Your task to perform on an android device: turn on data saver in the chrome app Image 0: 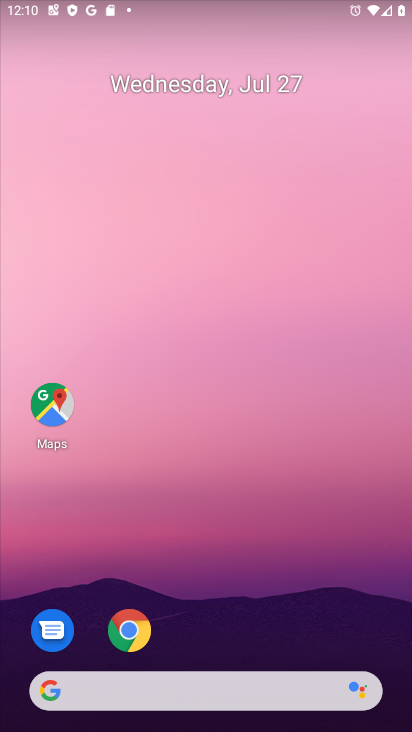
Step 0: click (139, 635)
Your task to perform on an android device: turn on data saver in the chrome app Image 1: 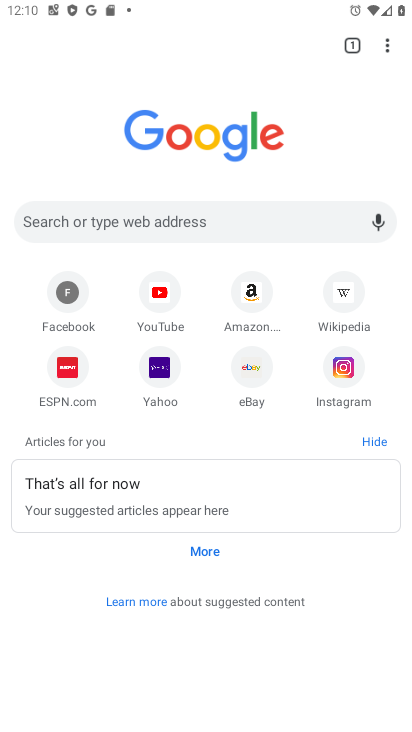
Step 1: click (395, 46)
Your task to perform on an android device: turn on data saver in the chrome app Image 2: 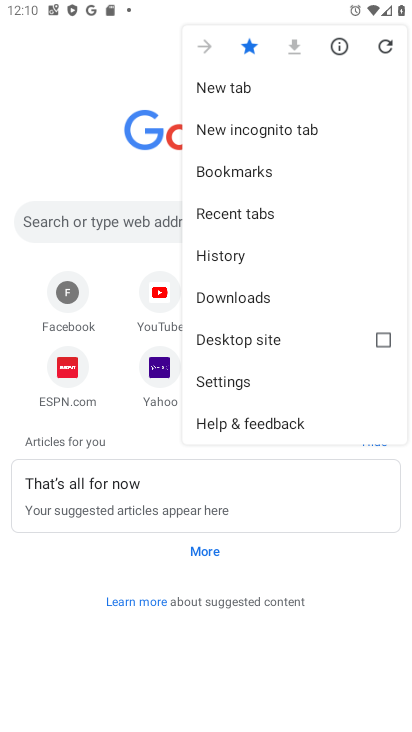
Step 2: click (288, 386)
Your task to perform on an android device: turn on data saver in the chrome app Image 3: 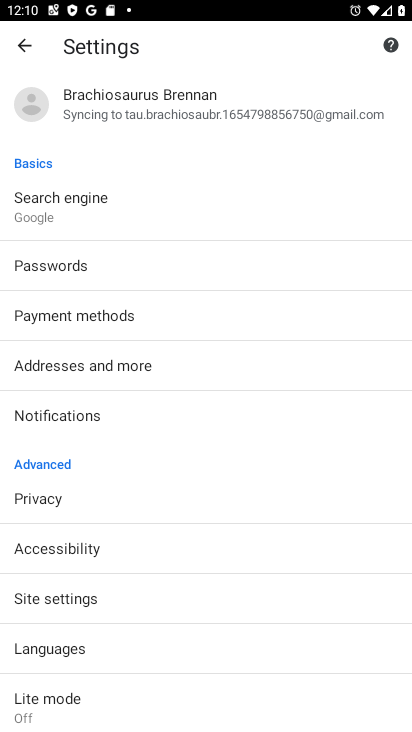
Step 3: click (120, 705)
Your task to perform on an android device: turn on data saver in the chrome app Image 4: 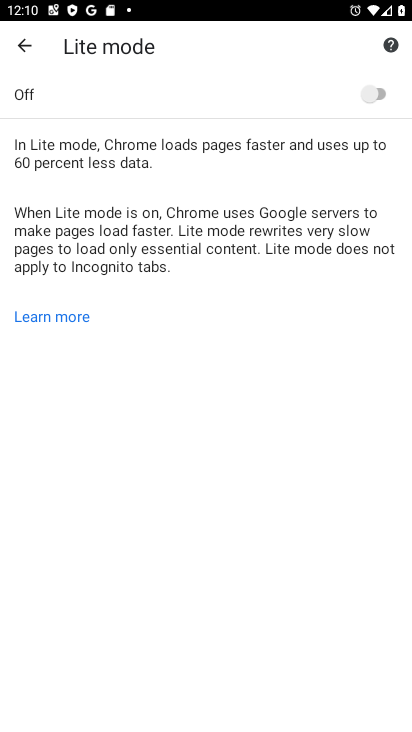
Step 4: click (377, 93)
Your task to perform on an android device: turn on data saver in the chrome app Image 5: 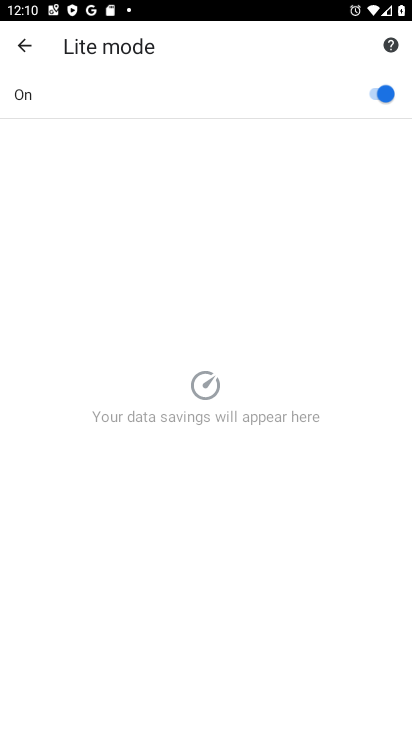
Step 5: task complete